Your task to perform on an android device: Open the Play Movies app and select the watchlist tab. Image 0: 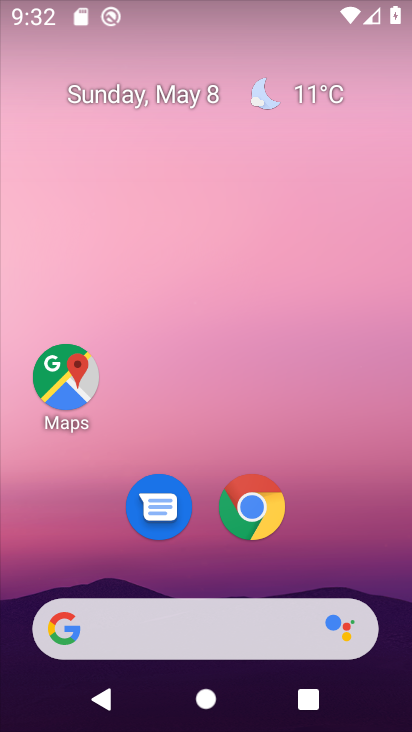
Step 0: drag from (338, 553) to (326, 106)
Your task to perform on an android device: Open the Play Movies app and select the watchlist tab. Image 1: 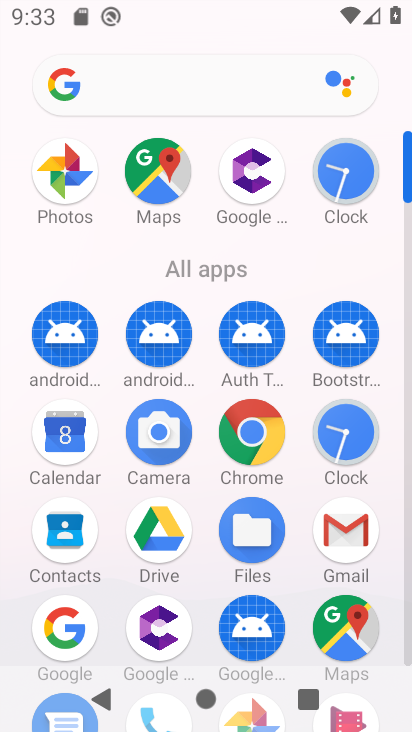
Step 1: drag from (194, 607) to (327, 65)
Your task to perform on an android device: Open the Play Movies app and select the watchlist tab. Image 2: 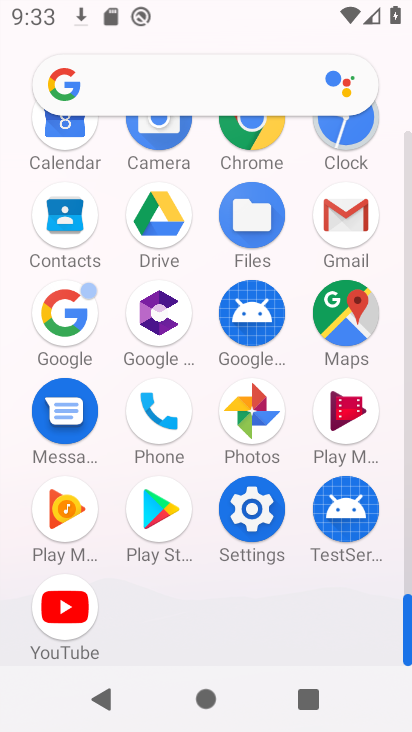
Step 2: click (348, 430)
Your task to perform on an android device: Open the Play Movies app and select the watchlist tab. Image 3: 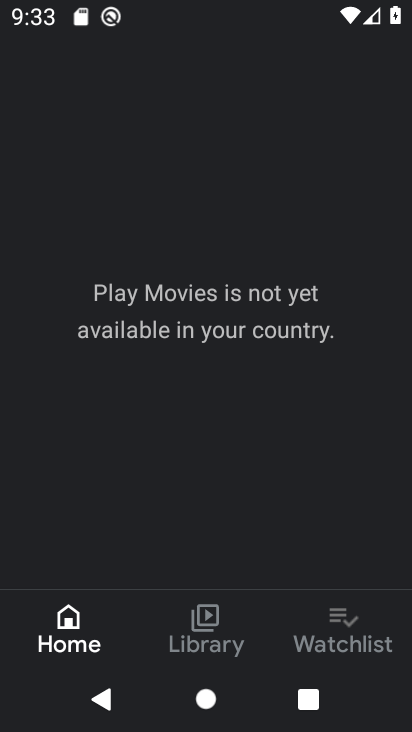
Step 3: click (373, 631)
Your task to perform on an android device: Open the Play Movies app and select the watchlist tab. Image 4: 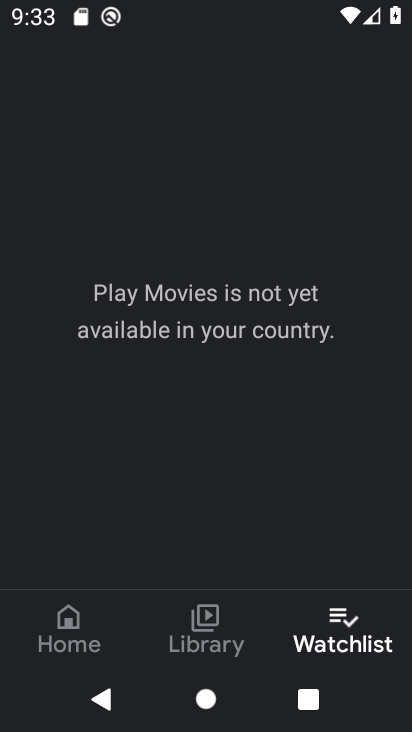
Step 4: task complete